Your task to perform on an android device: toggle javascript in the chrome app Image 0: 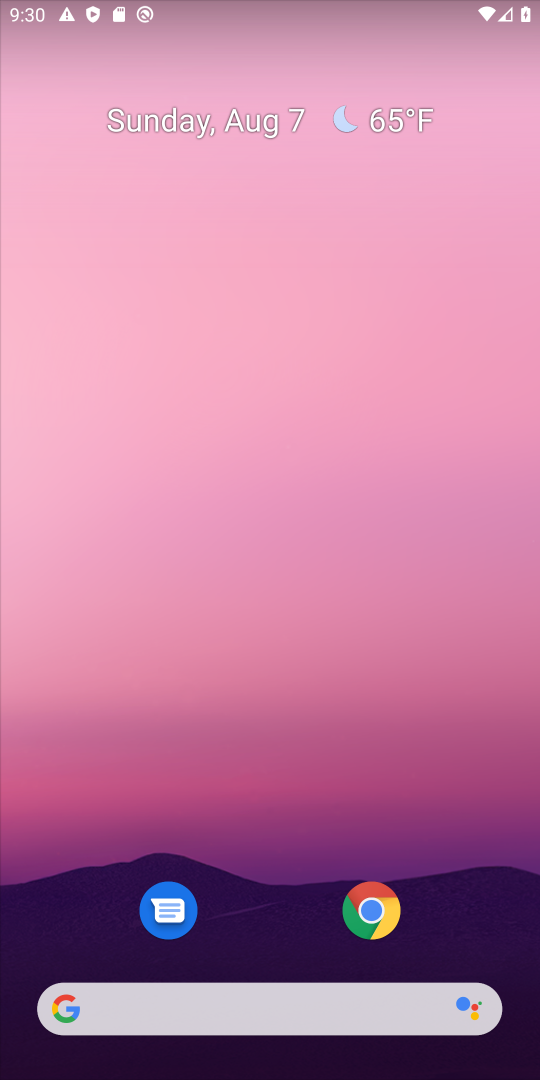
Step 0: click (361, 910)
Your task to perform on an android device: toggle javascript in the chrome app Image 1: 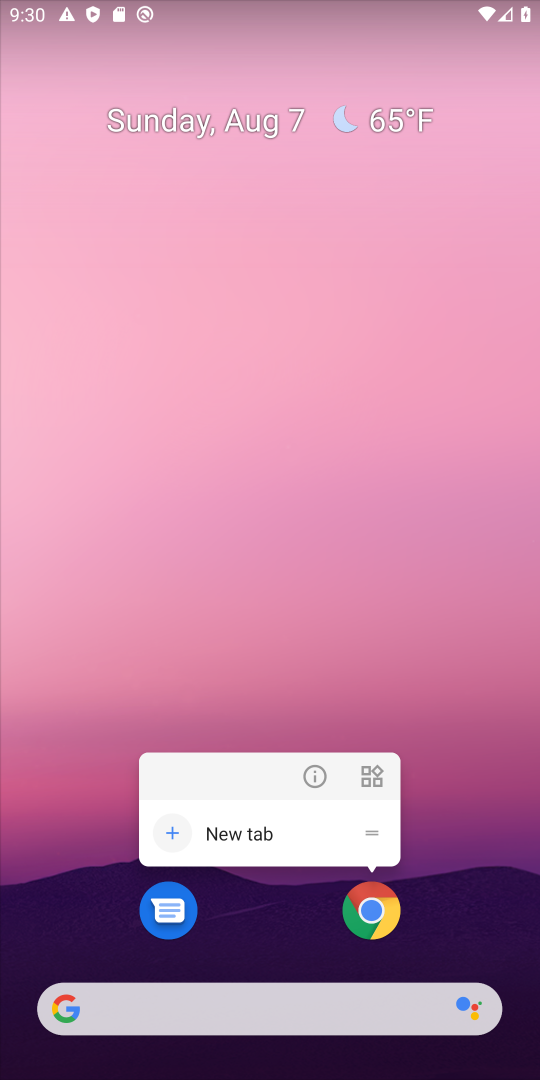
Step 1: click (361, 910)
Your task to perform on an android device: toggle javascript in the chrome app Image 2: 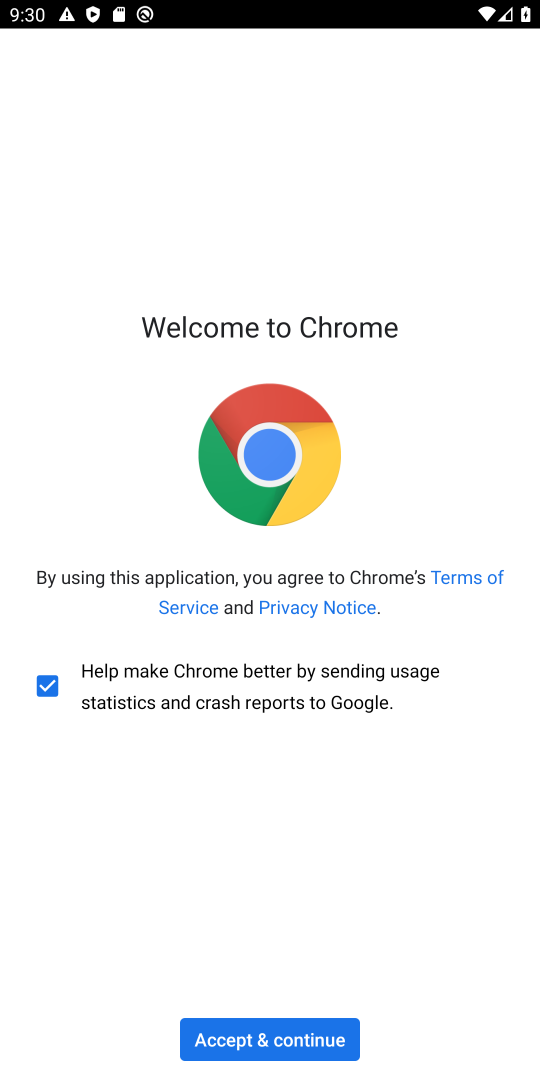
Step 2: click (265, 1040)
Your task to perform on an android device: toggle javascript in the chrome app Image 3: 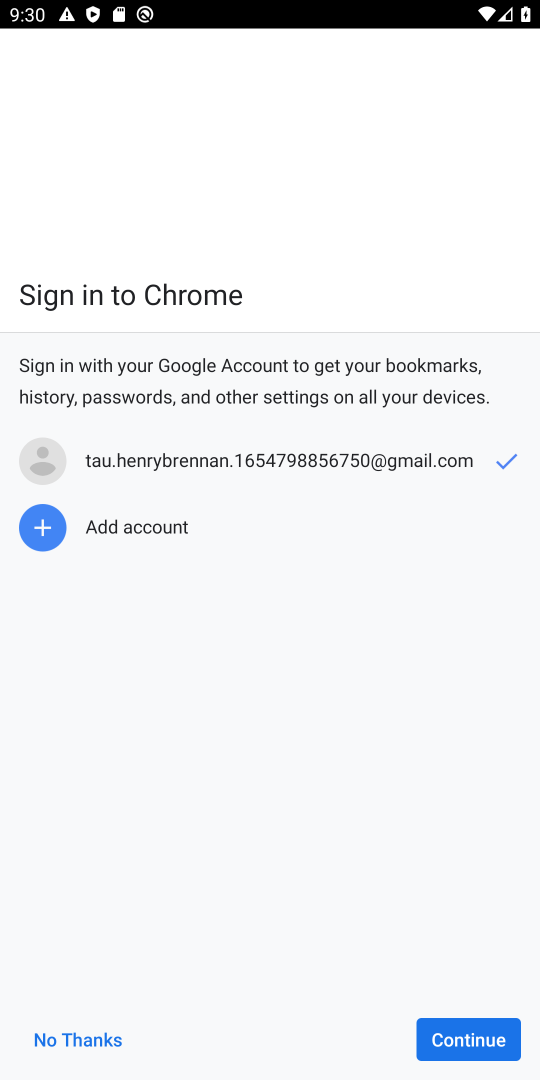
Step 3: click (432, 1035)
Your task to perform on an android device: toggle javascript in the chrome app Image 4: 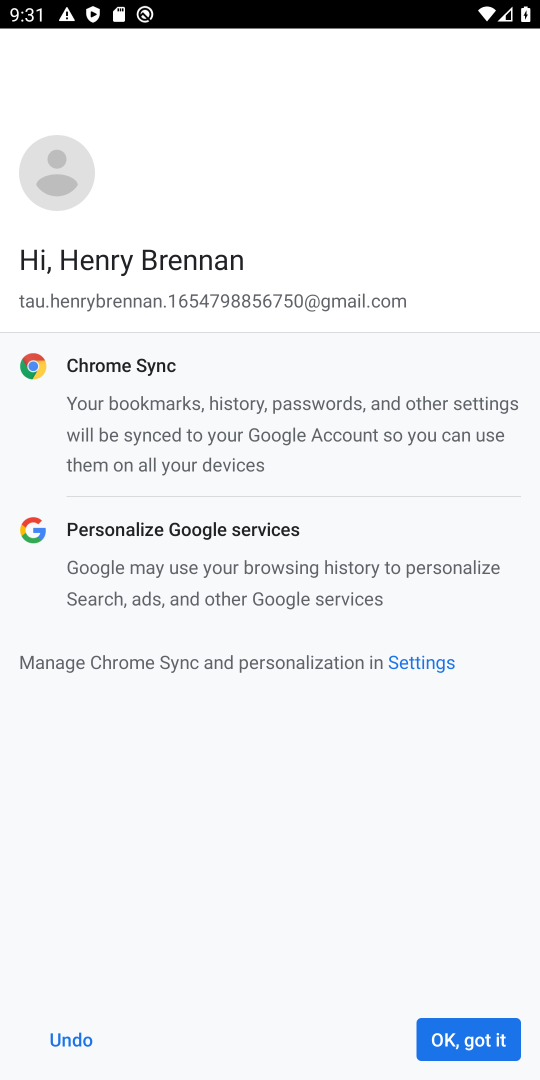
Step 4: click (470, 1035)
Your task to perform on an android device: toggle javascript in the chrome app Image 5: 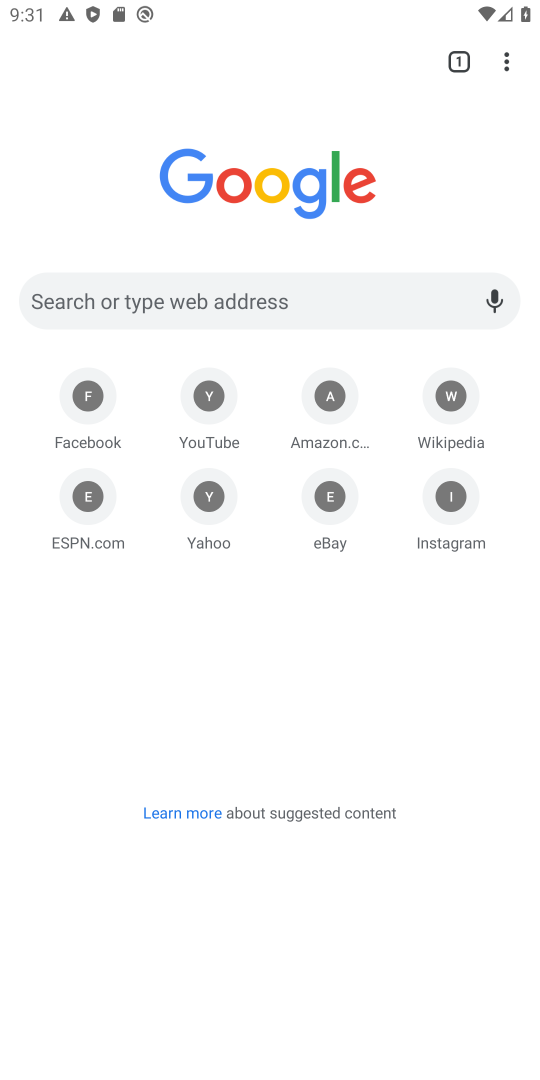
Step 5: click (506, 65)
Your task to perform on an android device: toggle javascript in the chrome app Image 6: 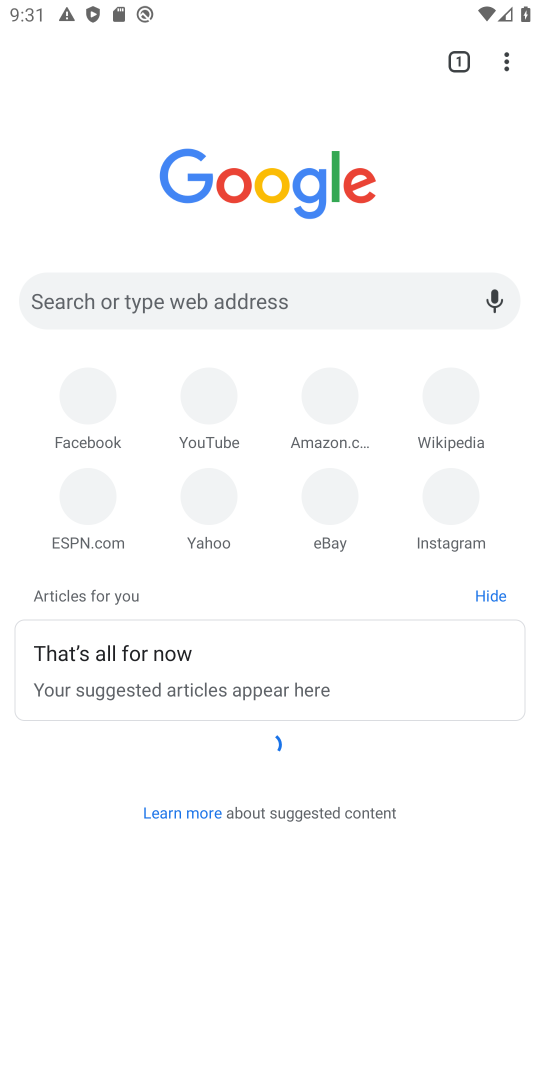
Step 6: click (516, 60)
Your task to perform on an android device: toggle javascript in the chrome app Image 7: 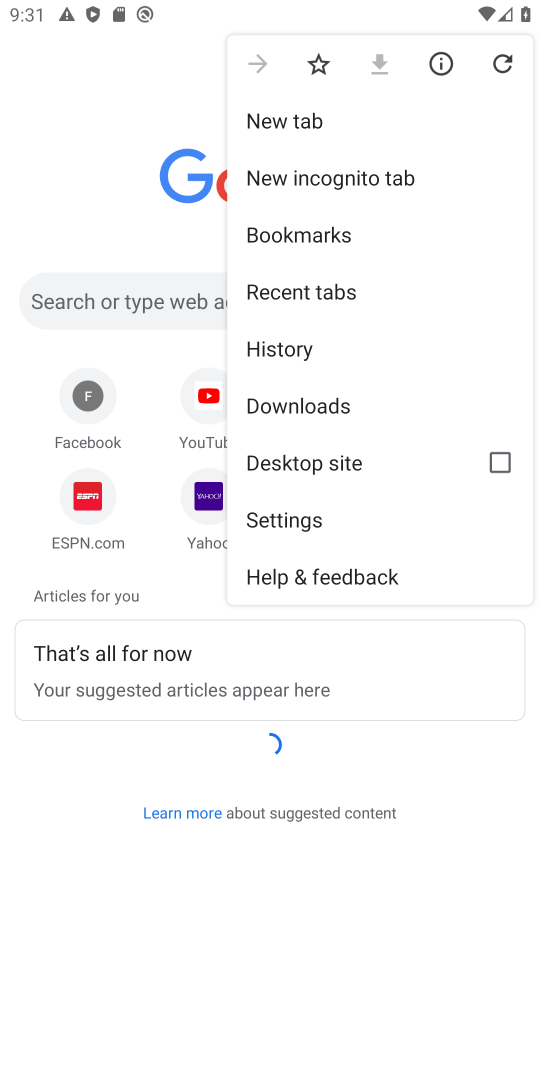
Step 7: click (274, 535)
Your task to perform on an android device: toggle javascript in the chrome app Image 8: 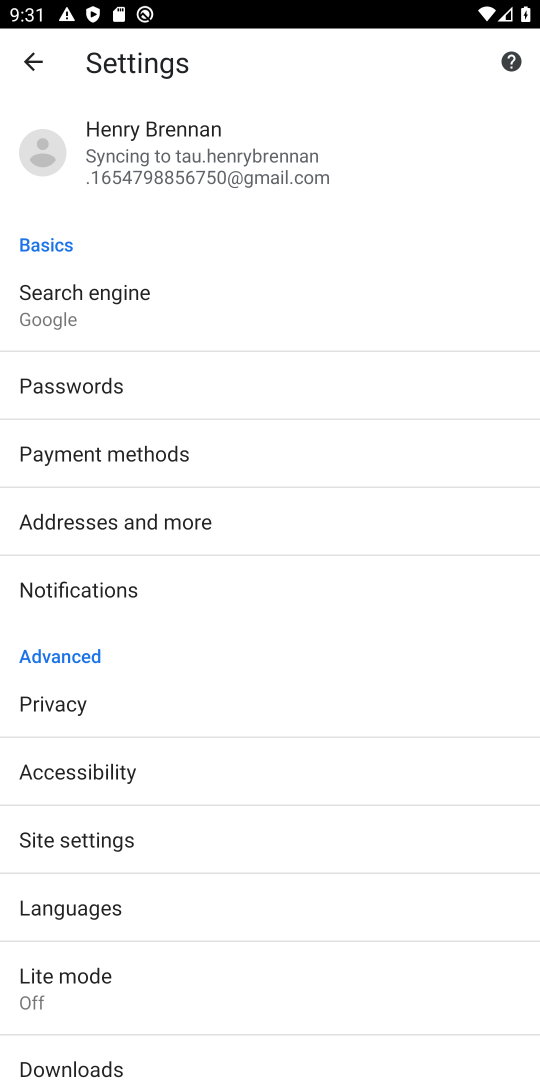
Step 8: click (40, 822)
Your task to perform on an android device: toggle javascript in the chrome app Image 9: 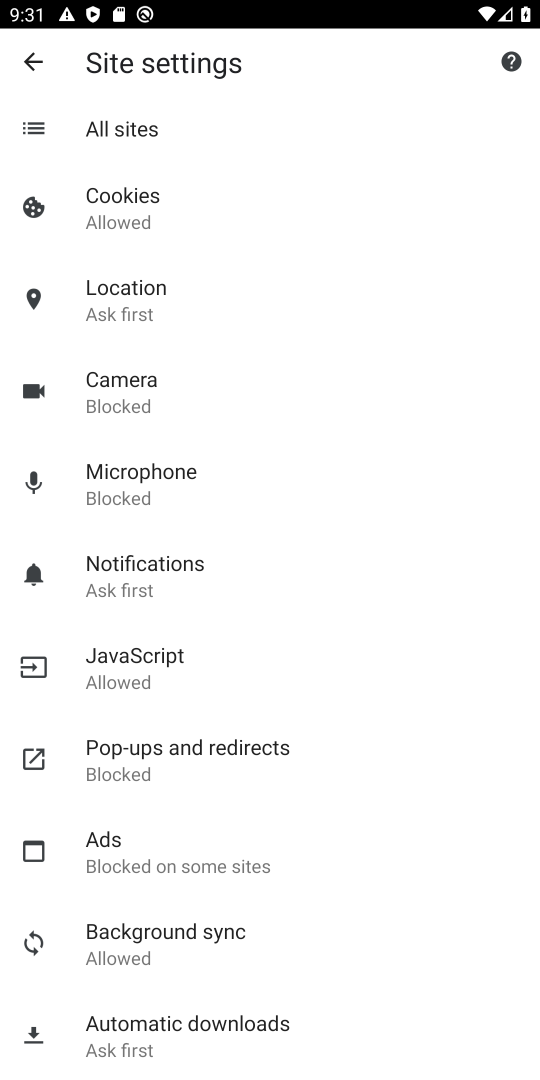
Step 9: click (105, 668)
Your task to perform on an android device: toggle javascript in the chrome app Image 10: 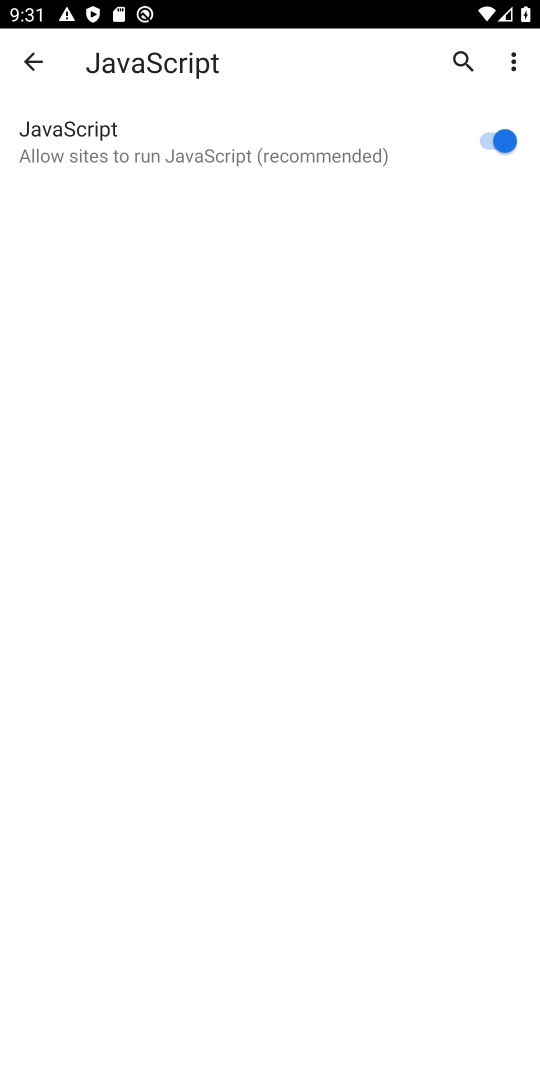
Step 10: click (483, 135)
Your task to perform on an android device: toggle javascript in the chrome app Image 11: 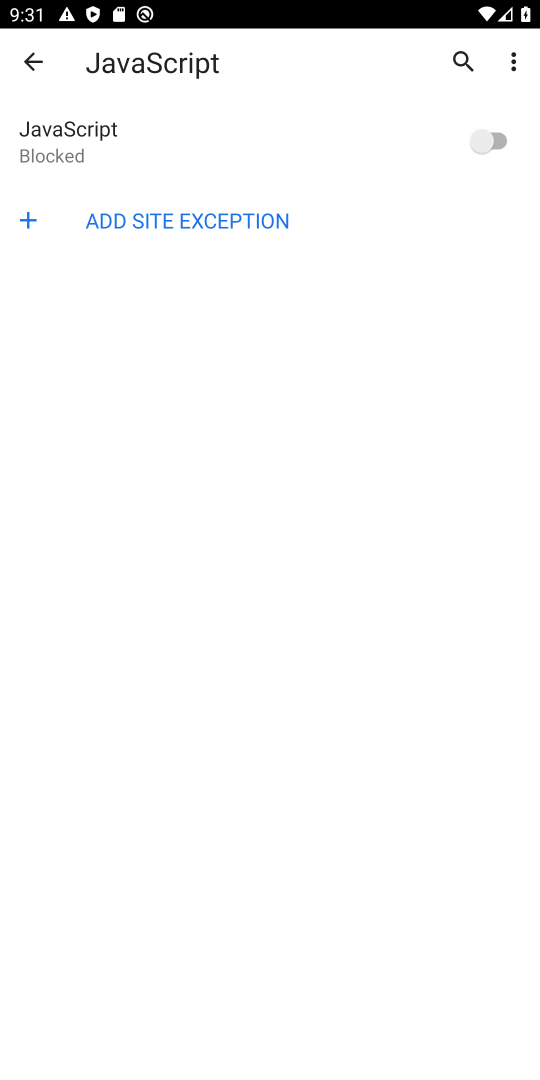
Step 11: task complete